Your task to perform on an android device: Go to ESPN.com Image 0: 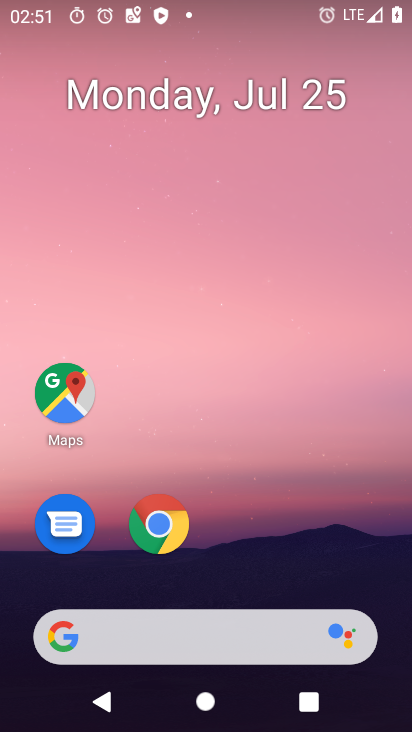
Step 0: press home button
Your task to perform on an android device: Go to ESPN.com Image 1: 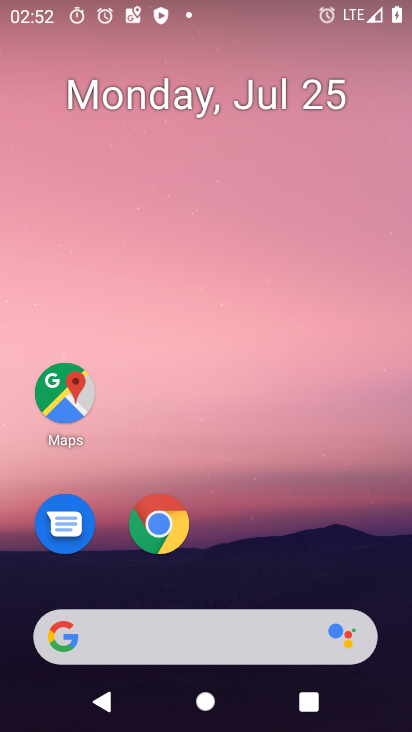
Step 1: click (58, 637)
Your task to perform on an android device: Go to ESPN.com Image 2: 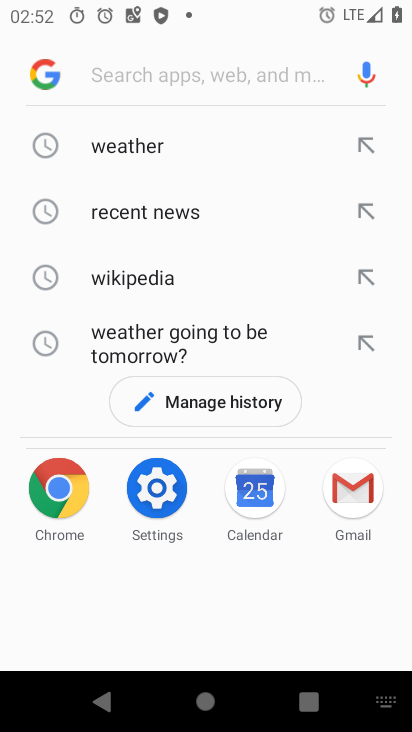
Step 2: type "ESPN.com"
Your task to perform on an android device: Go to ESPN.com Image 3: 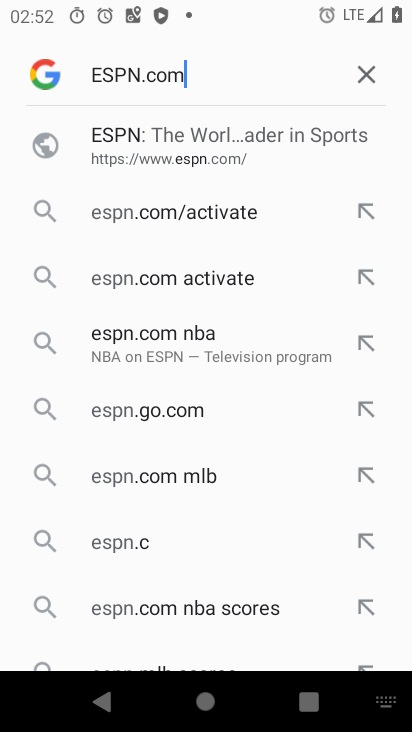
Step 3: press enter
Your task to perform on an android device: Go to ESPN.com Image 4: 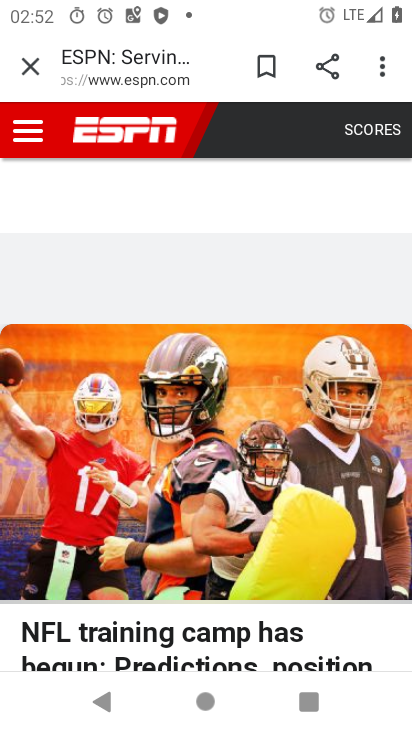
Step 4: task complete